Your task to perform on an android device: Turn on the flashlight Image 0: 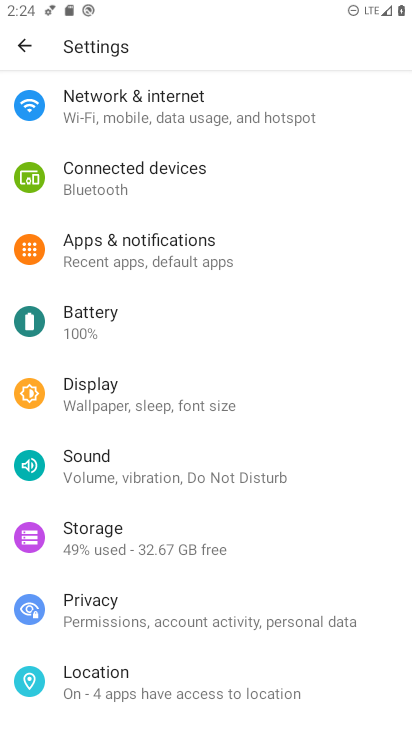
Step 0: press home button
Your task to perform on an android device: Turn on the flashlight Image 1: 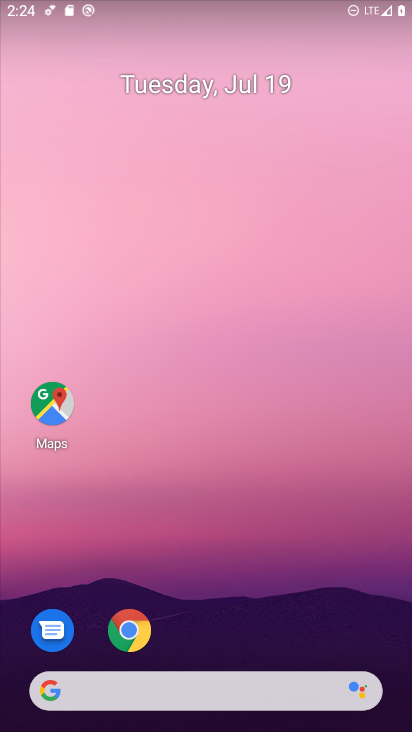
Step 1: drag from (213, 13) to (205, 487)
Your task to perform on an android device: Turn on the flashlight Image 2: 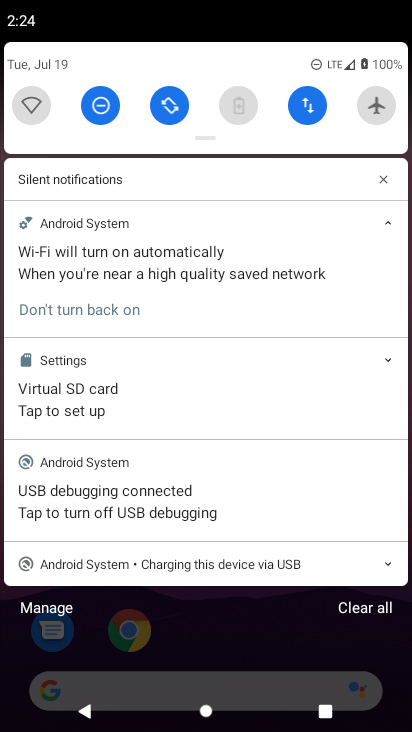
Step 2: drag from (207, 142) to (172, 396)
Your task to perform on an android device: Turn on the flashlight Image 3: 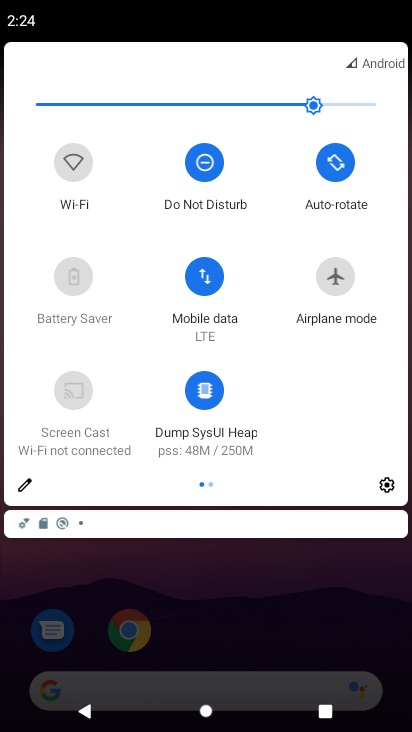
Step 3: click (21, 484)
Your task to perform on an android device: Turn on the flashlight Image 4: 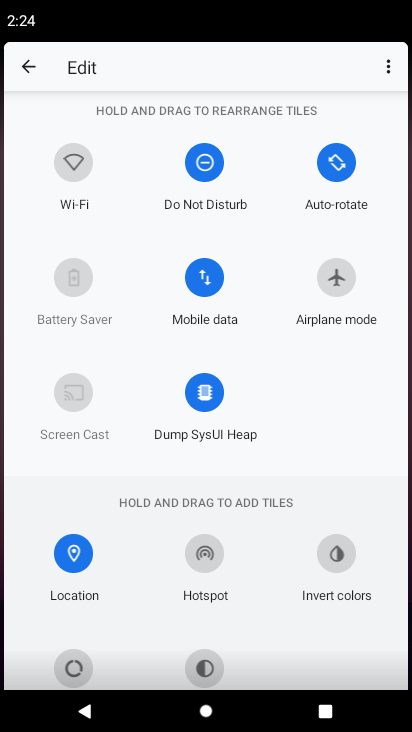
Step 4: task complete